Your task to perform on an android device: What's the weather going to be tomorrow? Image 0: 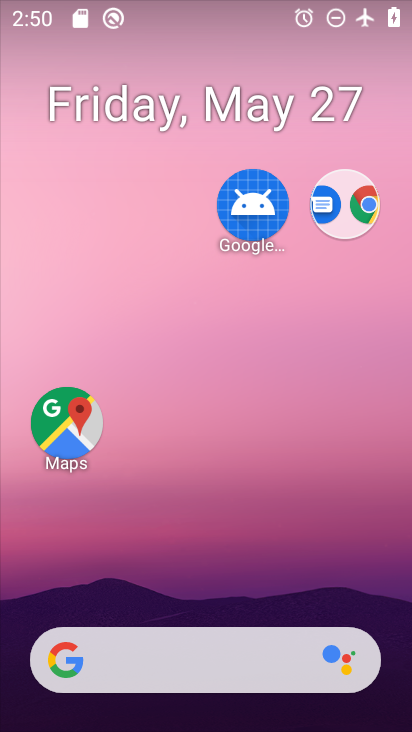
Step 0: drag from (246, 268) to (318, 18)
Your task to perform on an android device: What's the weather going to be tomorrow? Image 1: 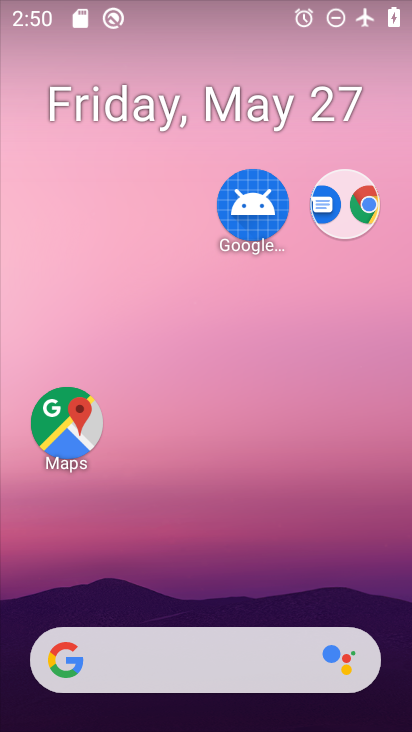
Step 1: drag from (200, 568) to (224, 122)
Your task to perform on an android device: What's the weather going to be tomorrow? Image 2: 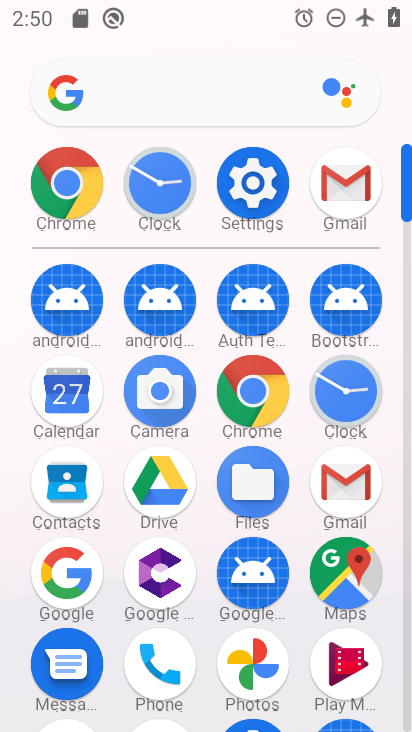
Step 2: click (72, 576)
Your task to perform on an android device: What's the weather going to be tomorrow? Image 3: 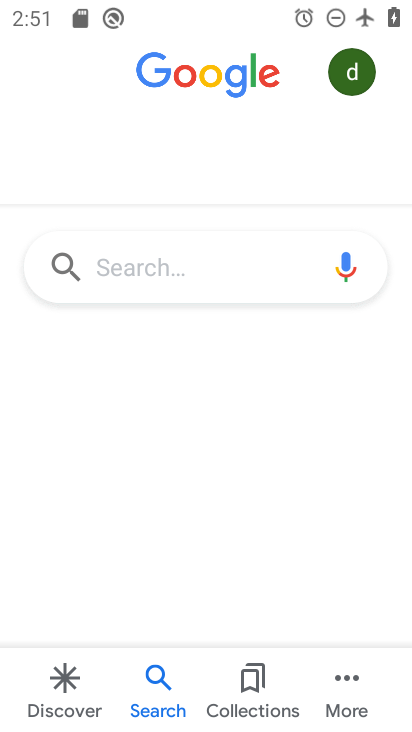
Step 3: click (242, 275)
Your task to perform on an android device: What's the weather going to be tomorrow? Image 4: 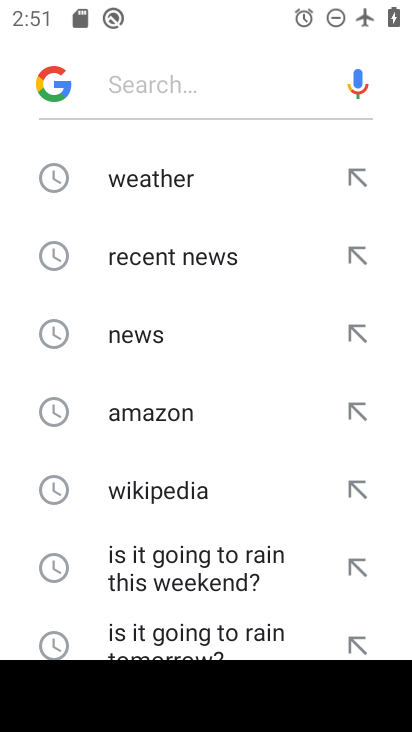
Step 4: click (221, 169)
Your task to perform on an android device: What's the weather going to be tomorrow? Image 5: 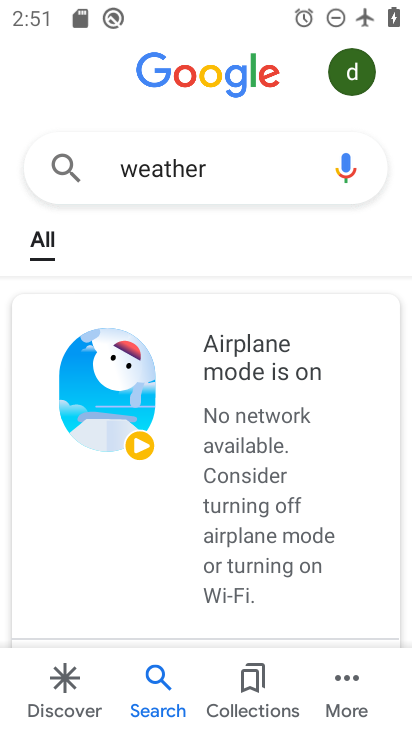
Step 5: task complete